Your task to perform on an android device: Play the last video I watched on Youtube Image 0: 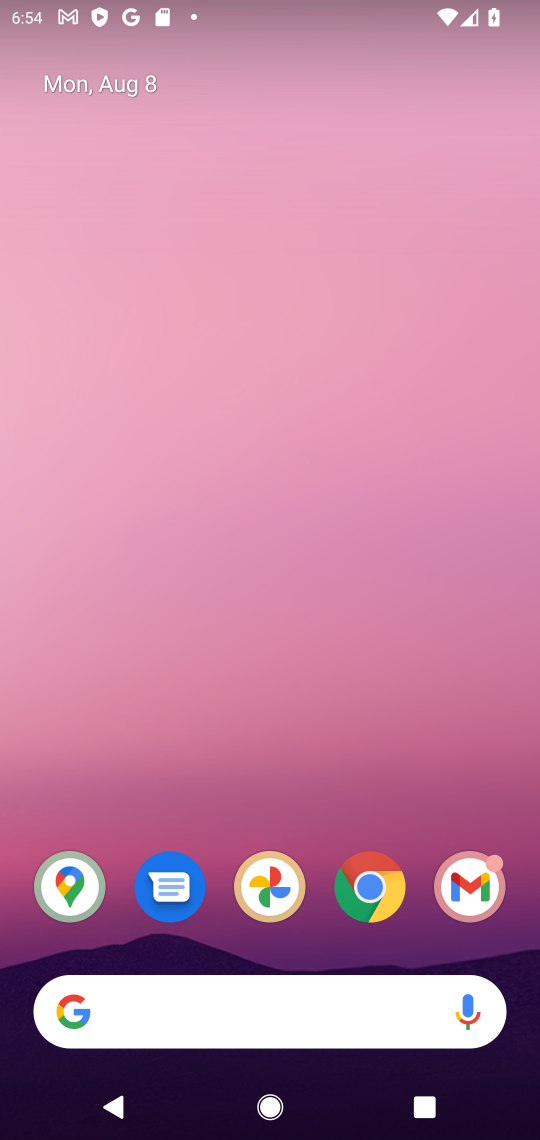
Step 0: drag from (403, 818) to (305, 171)
Your task to perform on an android device: Play the last video I watched on Youtube Image 1: 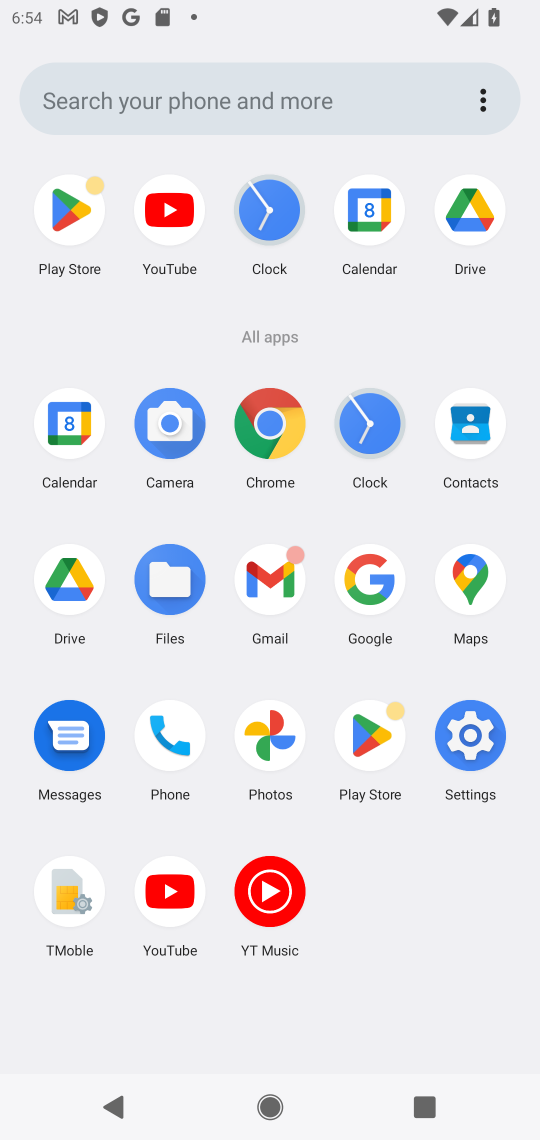
Step 1: click (148, 906)
Your task to perform on an android device: Play the last video I watched on Youtube Image 2: 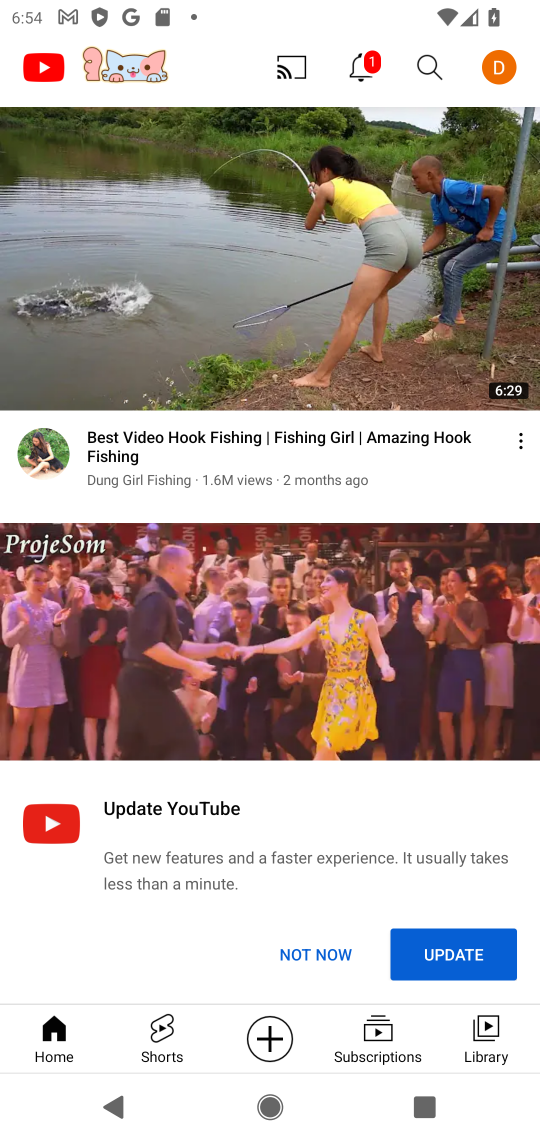
Step 2: click (485, 1049)
Your task to perform on an android device: Play the last video I watched on Youtube Image 3: 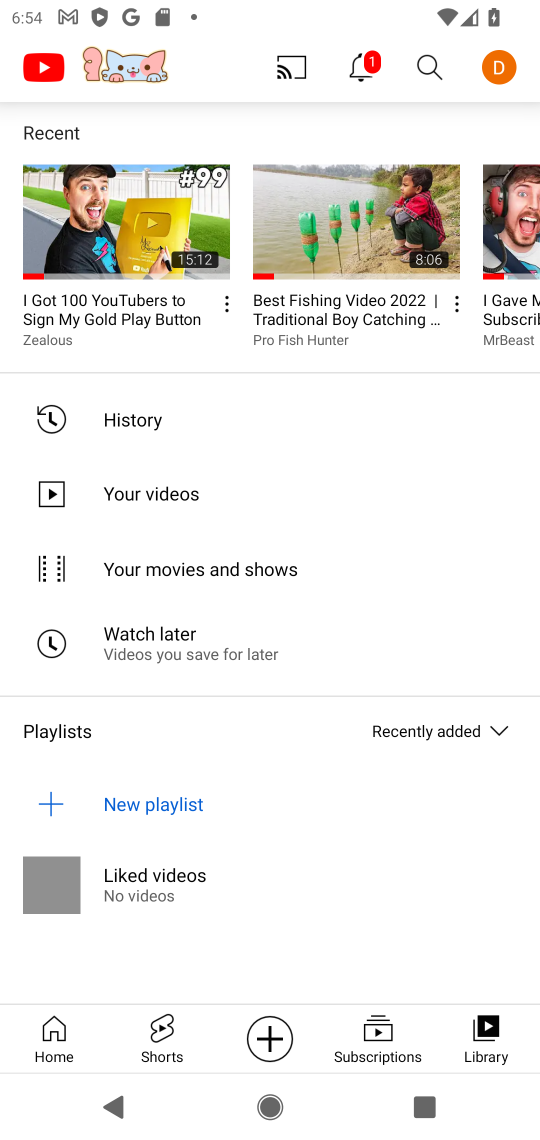
Step 3: click (116, 221)
Your task to perform on an android device: Play the last video I watched on Youtube Image 4: 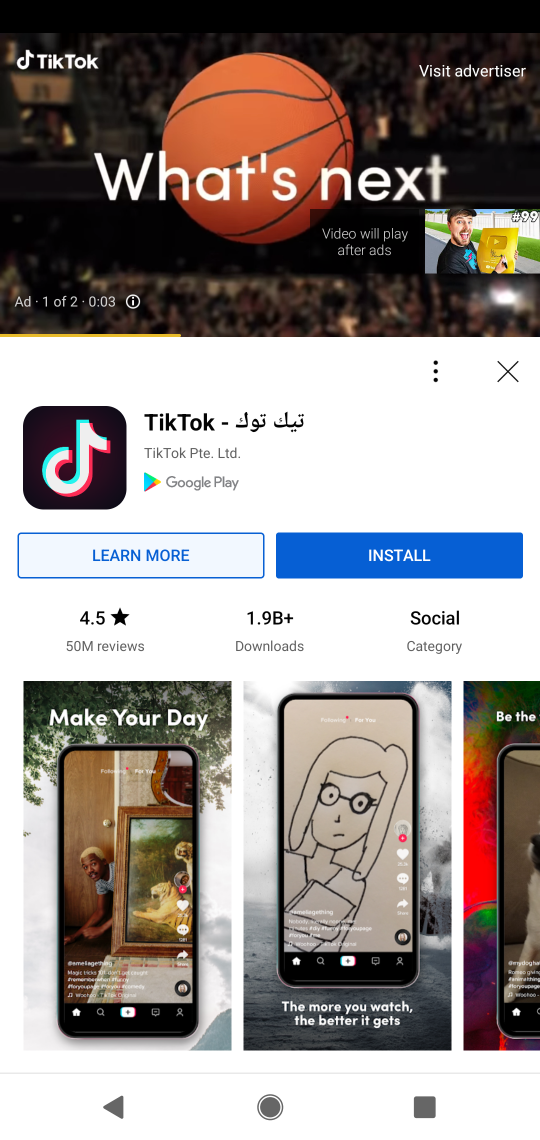
Step 4: task complete